Your task to perform on an android device: turn notification dots on Image 0: 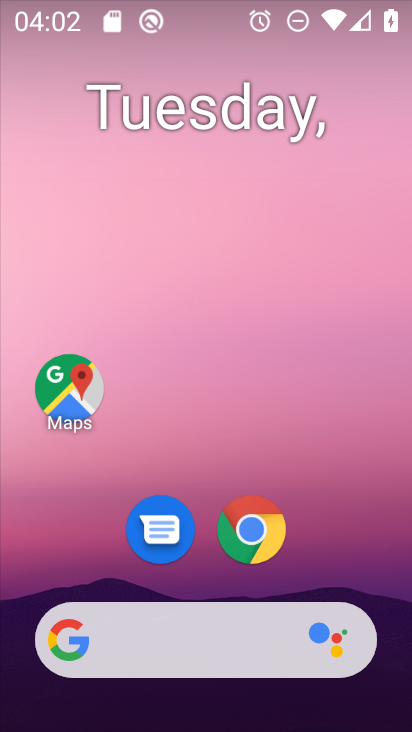
Step 0: drag from (311, 541) to (299, 266)
Your task to perform on an android device: turn notification dots on Image 1: 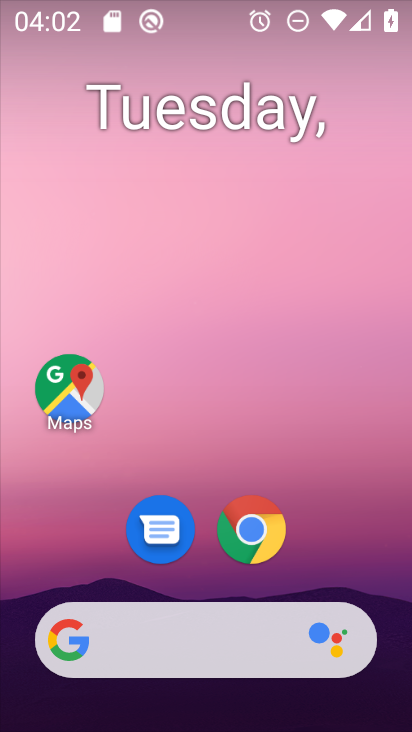
Step 1: drag from (190, 561) to (191, 184)
Your task to perform on an android device: turn notification dots on Image 2: 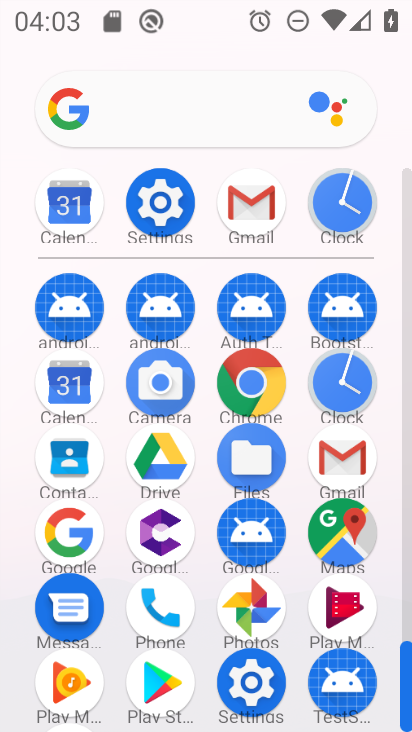
Step 2: click (134, 187)
Your task to perform on an android device: turn notification dots on Image 3: 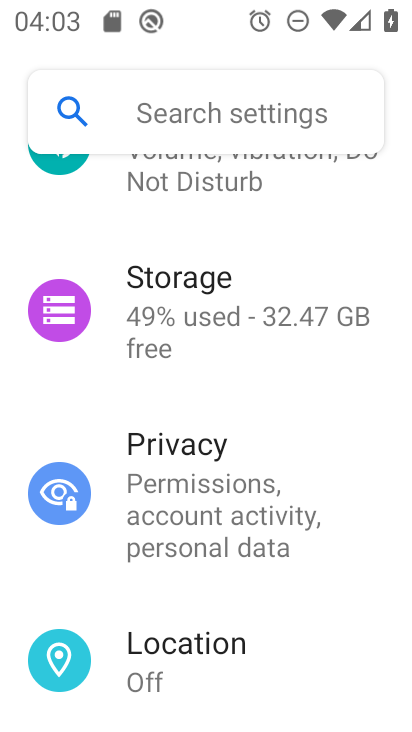
Step 3: click (304, 272)
Your task to perform on an android device: turn notification dots on Image 4: 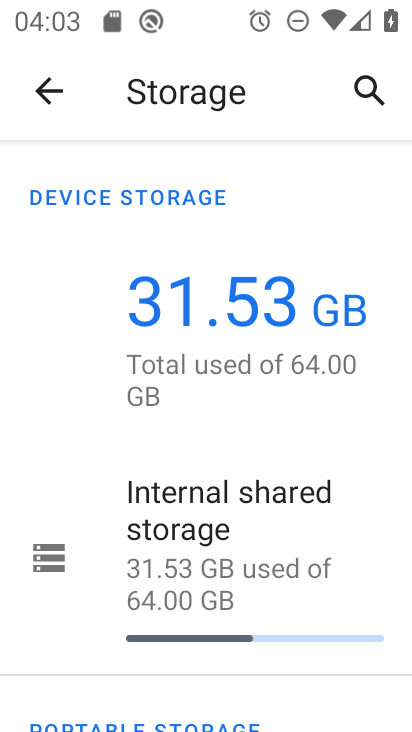
Step 4: click (41, 74)
Your task to perform on an android device: turn notification dots on Image 5: 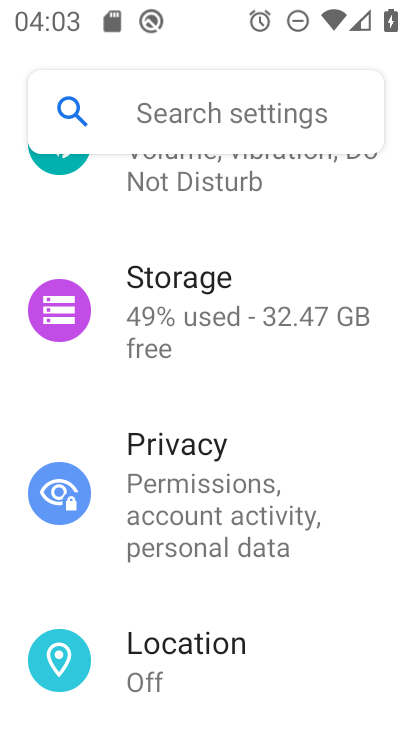
Step 5: click (226, 101)
Your task to perform on an android device: turn notification dots on Image 6: 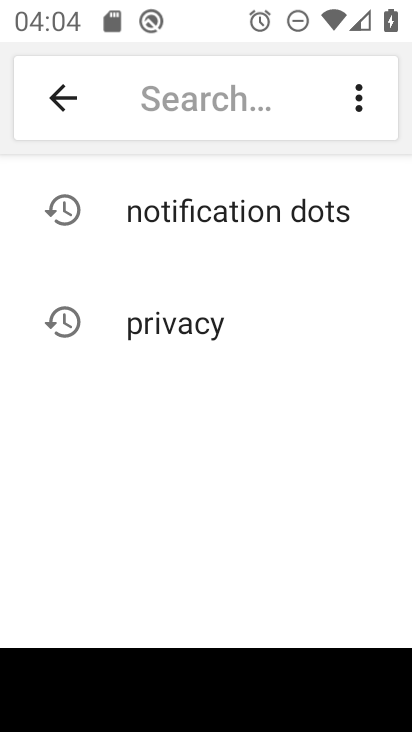
Step 6: click (266, 183)
Your task to perform on an android device: turn notification dots on Image 7: 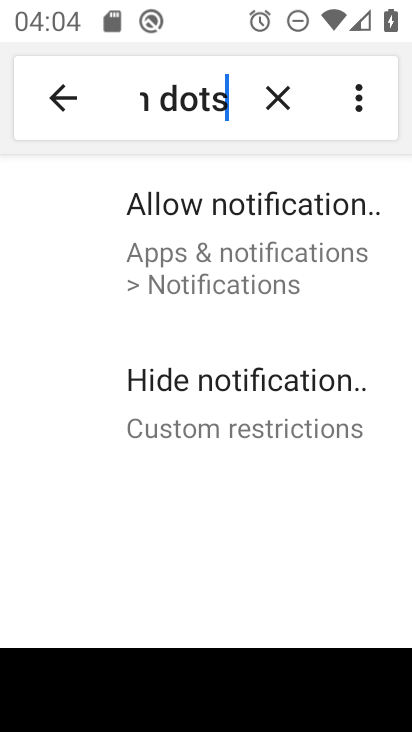
Step 7: click (291, 246)
Your task to perform on an android device: turn notification dots on Image 8: 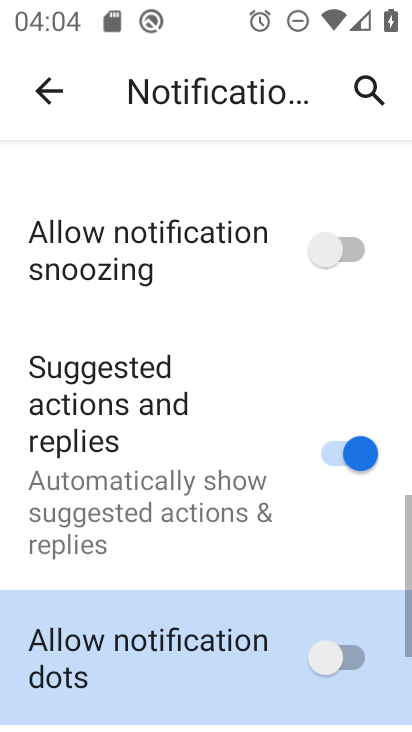
Step 8: click (333, 634)
Your task to perform on an android device: turn notification dots on Image 9: 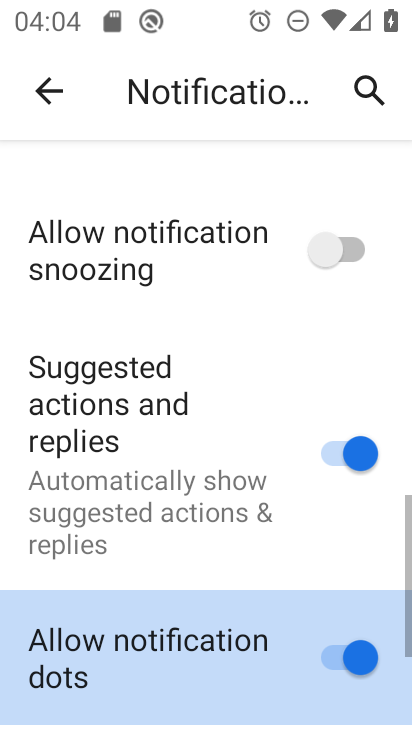
Step 9: task complete